Your task to perform on an android device: change the clock display to analog Image 0: 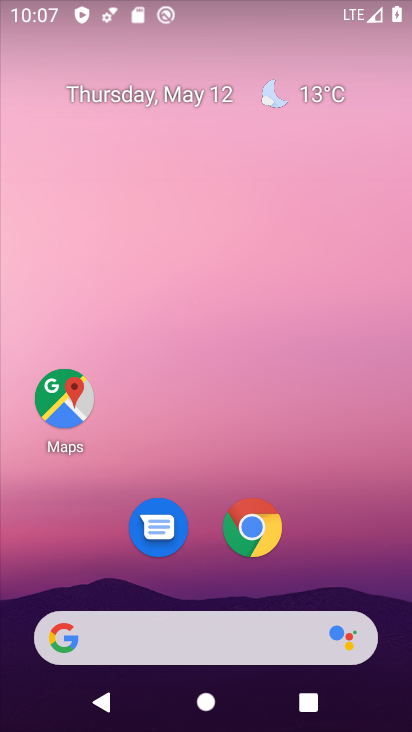
Step 0: drag from (330, 555) to (388, 164)
Your task to perform on an android device: change the clock display to analog Image 1: 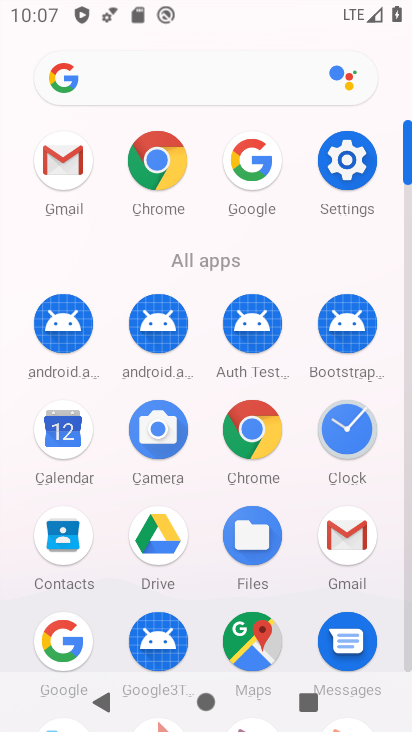
Step 1: click (346, 438)
Your task to perform on an android device: change the clock display to analog Image 2: 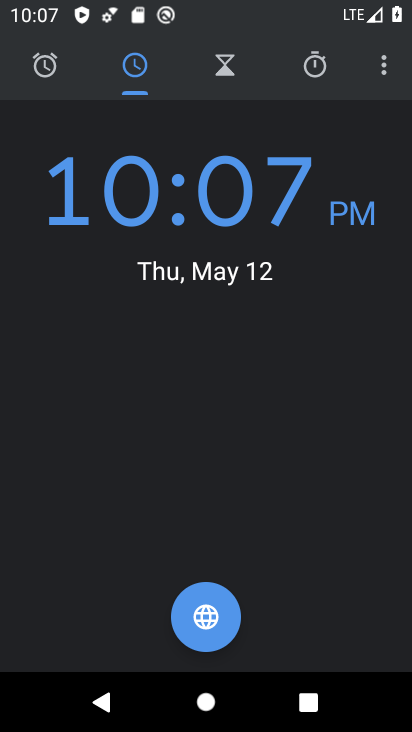
Step 2: click (381, 67)
Your task to perform on an android device: change the clock display to analog Image 3: 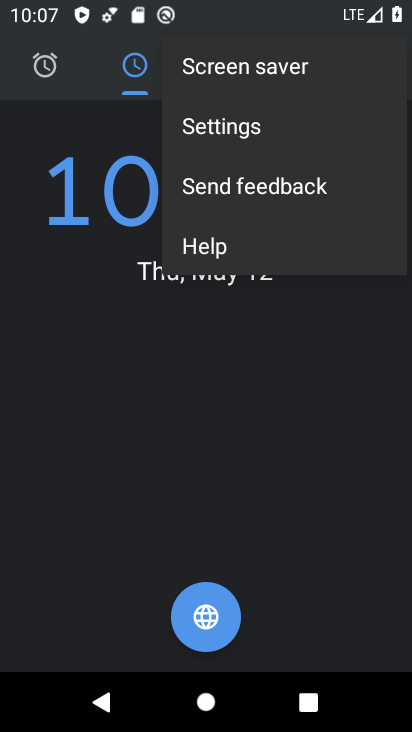
Step 3: click (278, 121)
Your task to perform on an android device: change the clock display to analog Image 4: 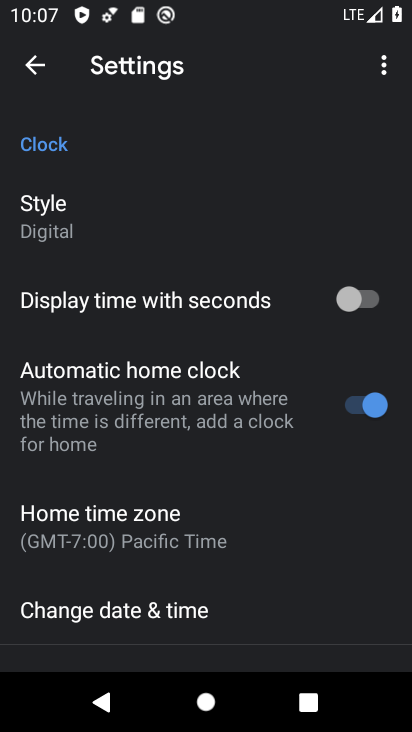
Step 4: click (38, 218)
Your task to perform on an android device: change the clock display to analog Image 5: 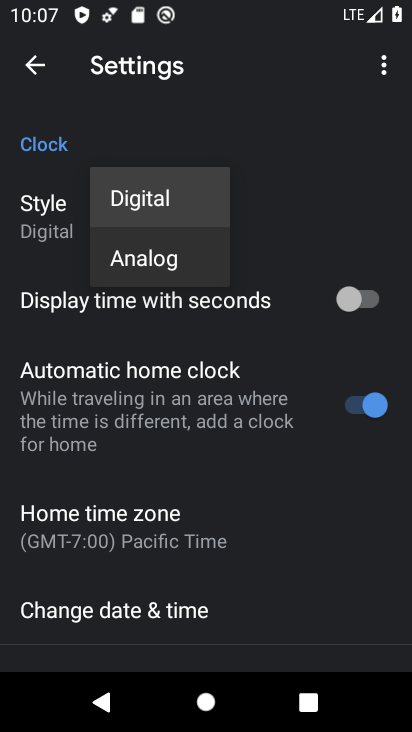
Step 5: click (175, 269)
Your task to perform on an android device: change the clock display to analog Image 6: 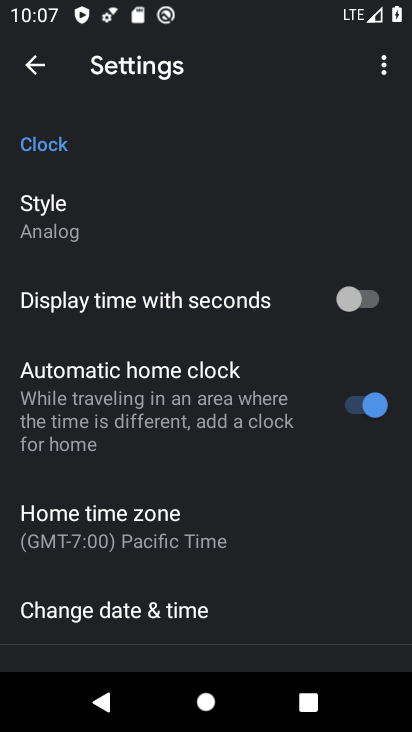
Step 6: task complete